Your task to perform on an android device: turn off sleep mode Image 0: 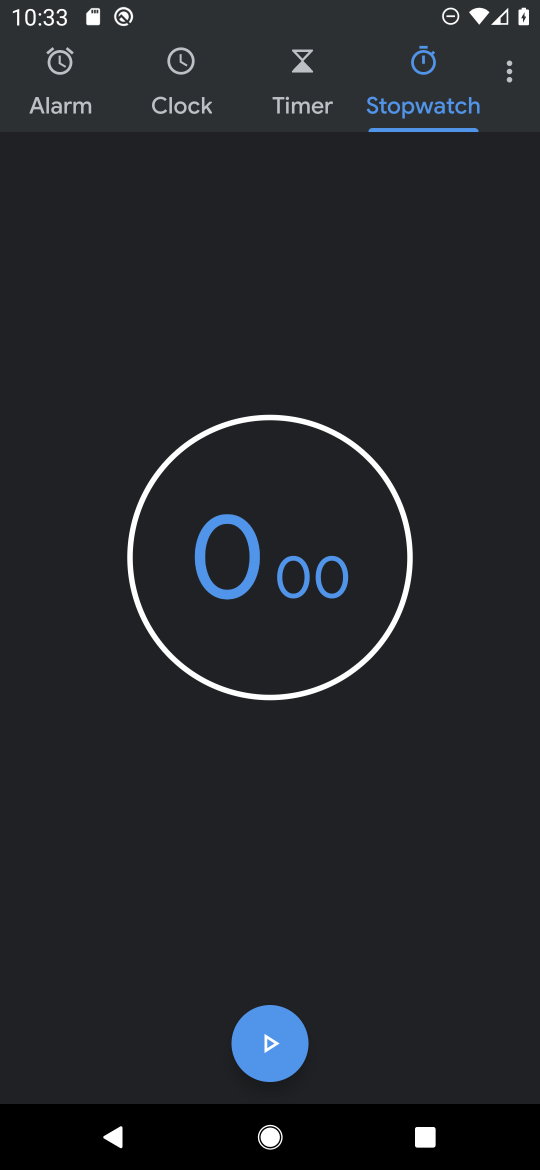
Step 0: press home button
Your task to perform on an android device: turn off sleep mode Image 1: 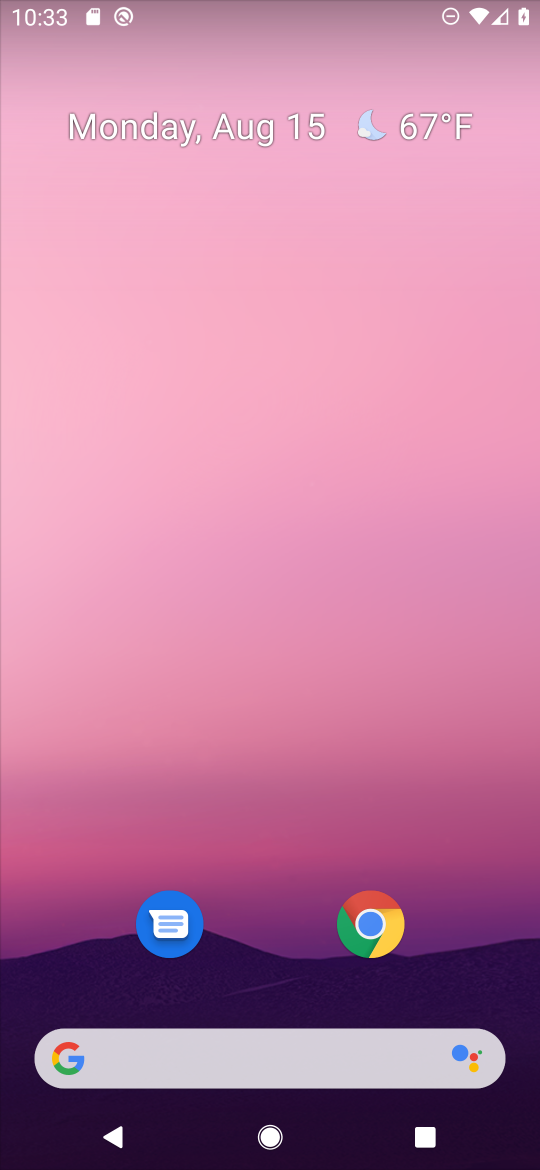
Step 1: drag from (510, 989) to (418, 130)
Your task to perform on an android device: turn off sleep mode Image 2: 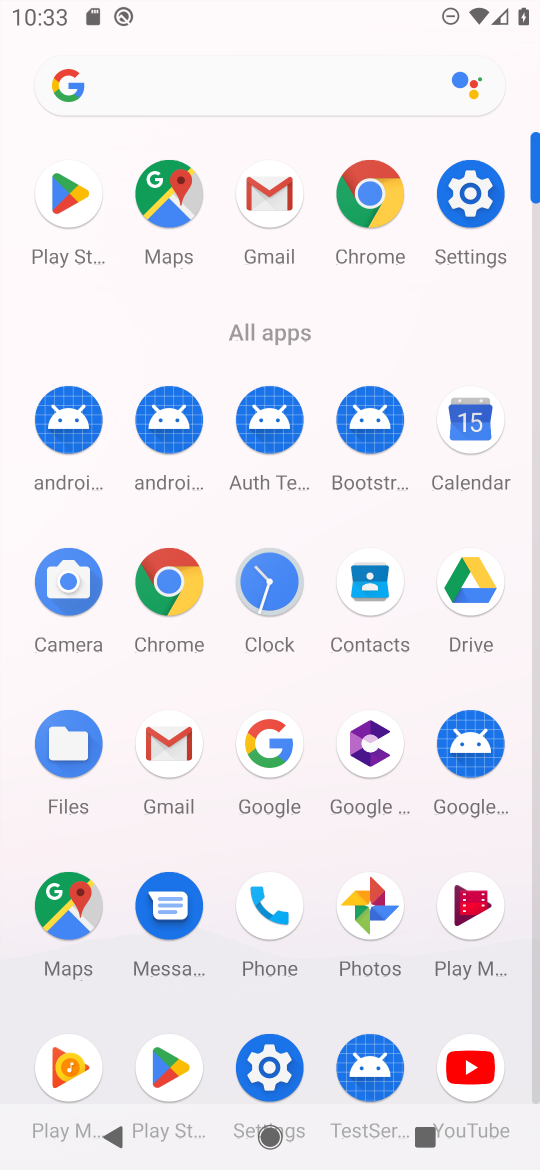
Step 2: click (268, 1068)
Your task to perform on an android device: turn off sleep mode Image 3: 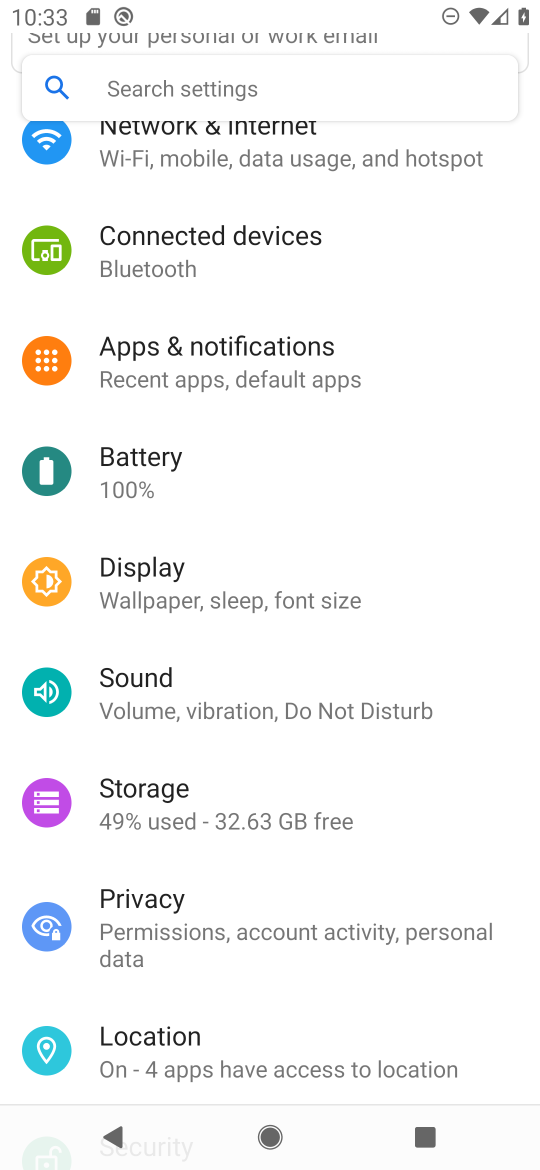
Step 3: click (183, 588)
Your task to perform on an android device: turn off sleep mode Image 4: 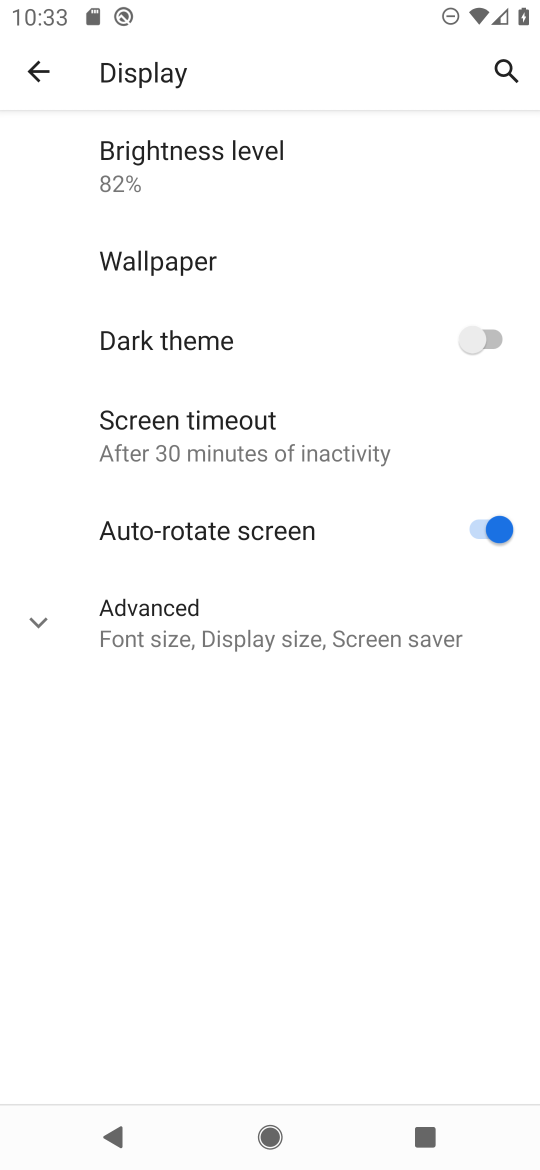
Step 4: click (40, 628)
Your task to perform on an android device: turn off sleep mode Image 5: 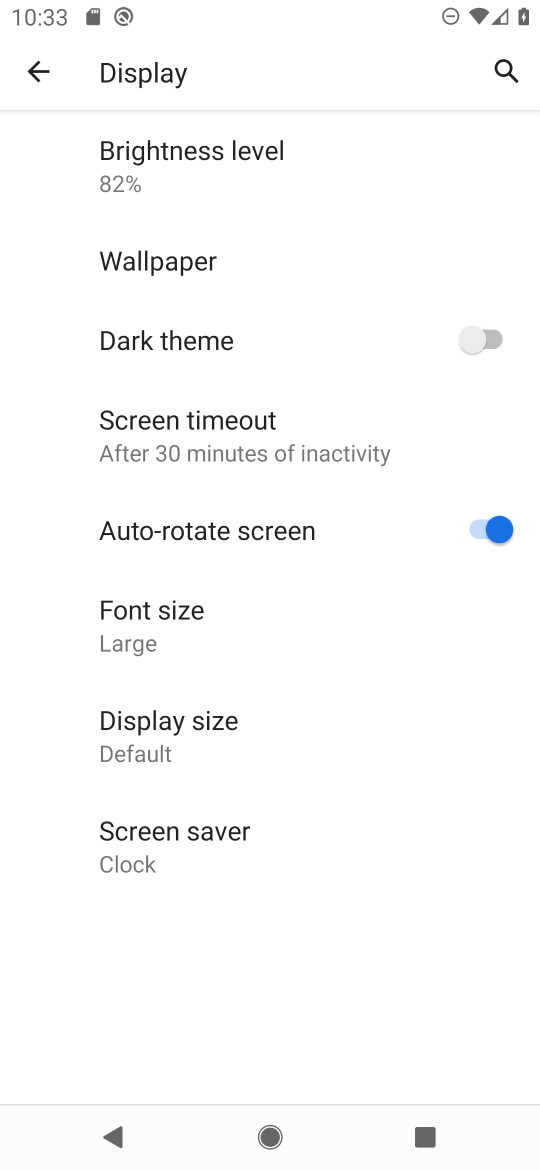
Step 5: task complete